Your task to perform on an android device: turn pop-ups on in chrome Image 0: 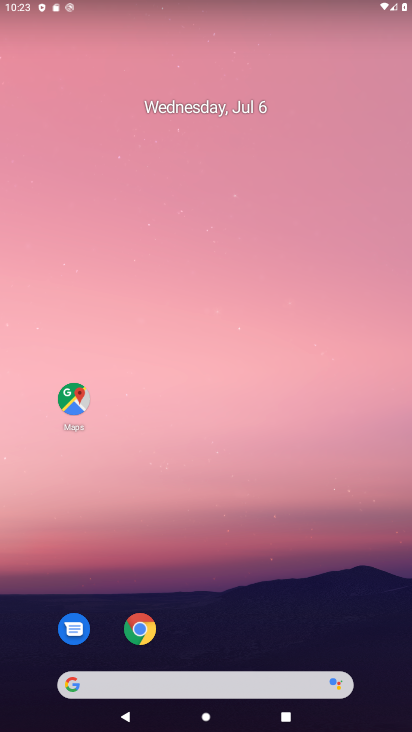
Step 0: click (135, 631)
Your task to perform on an android device: turn pop-ups on in chrome Image 1: 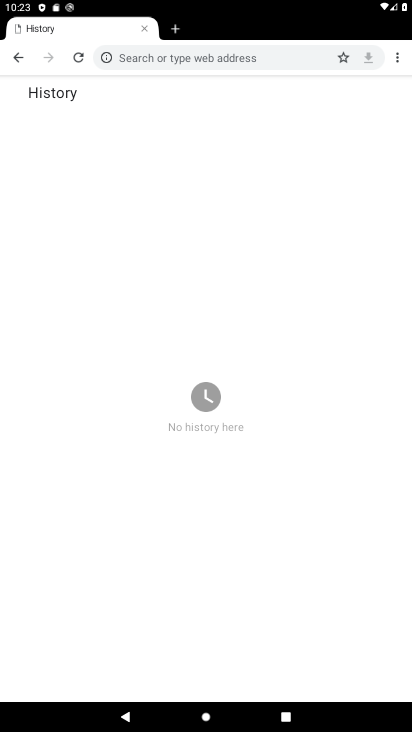
Step 1: click (26, 62)
Your task to perform on an android device: turn pop-ups on in chrome Image 2: 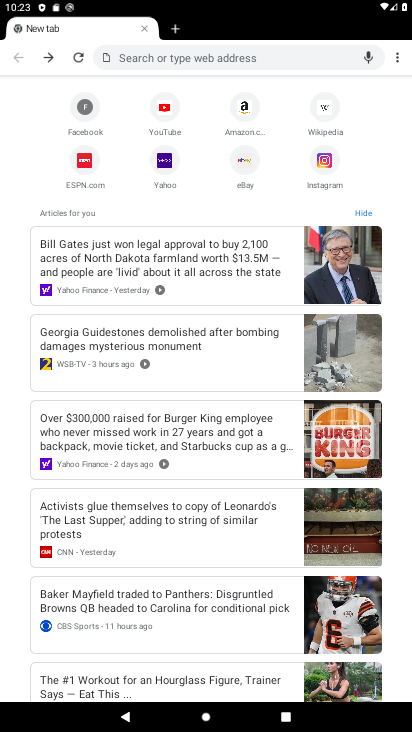
Step 2: click (393, 50)
Your task to perform on an android device: turn pop-ups on in chrome Image 3: 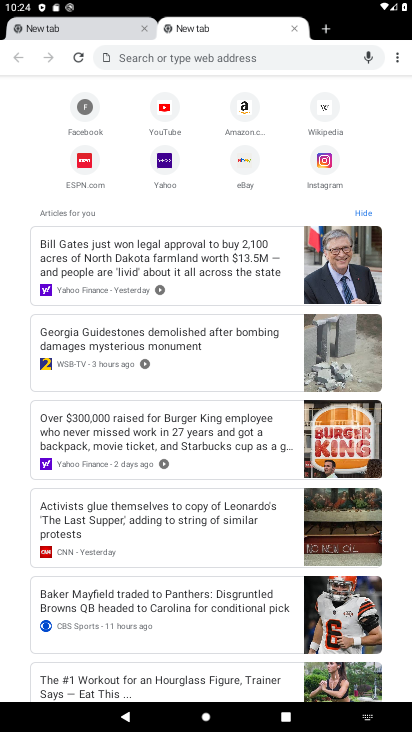
Step 3: click (400, 56)
Your task to perform on an android device: turn pop-ups on in chrome Image 4: 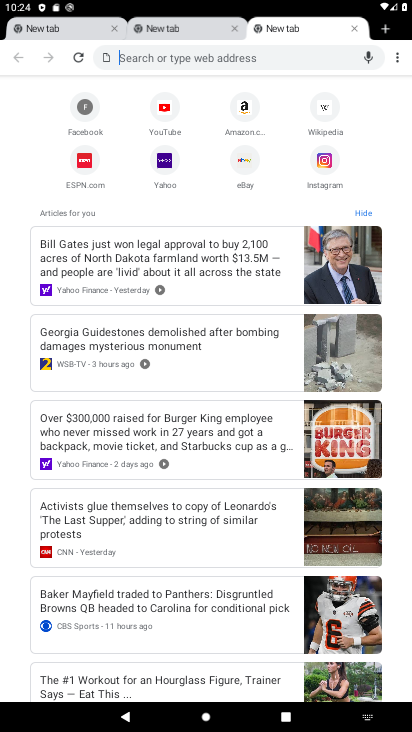
Step 4: click (394, 66)
Your task to perform on an android device: turn pop-ups on in chrome Image 5: 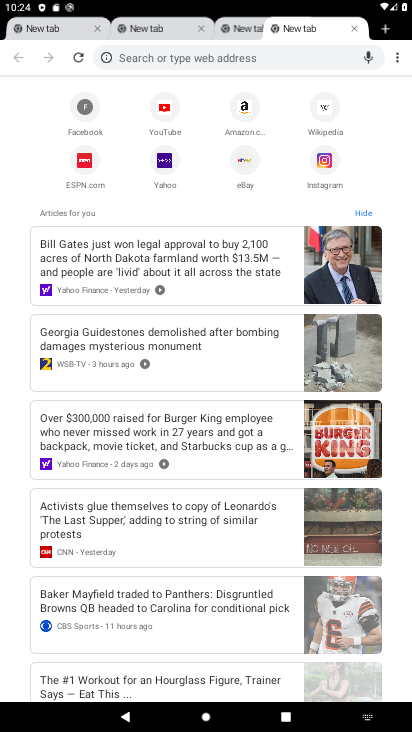
Step 5: click (394, 66)
Your task to perform on an android device: turn pop-ups on in chrome Image 6: 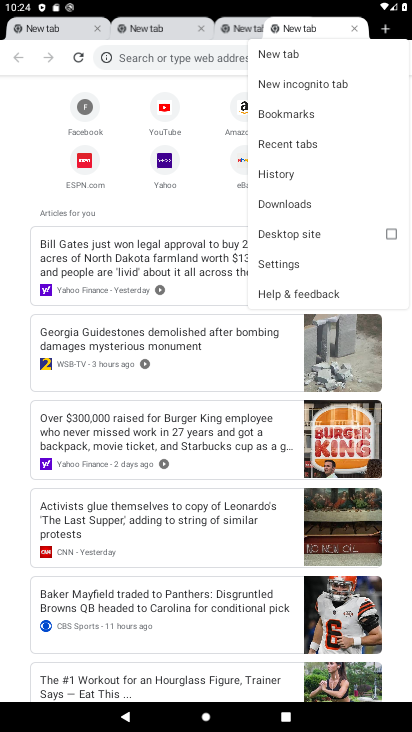
Step 6: click (314, 260)
Your task to perform on an android device: turn pop-ups on in chrome Image 7: 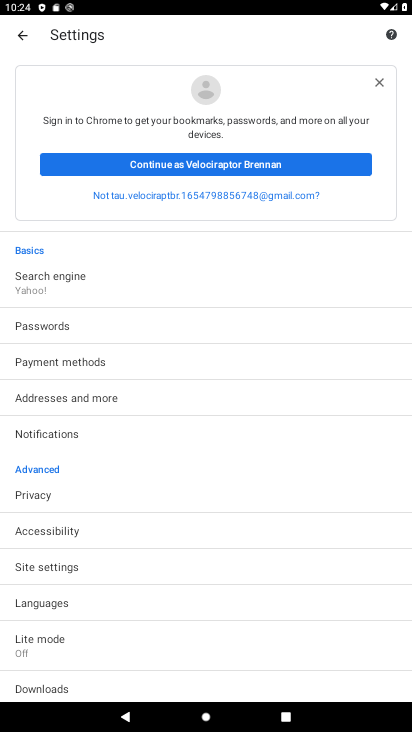
Step 7: click (89, 575)
Your task to perform on an android device: turn pop-ups on in chrome Image 8: 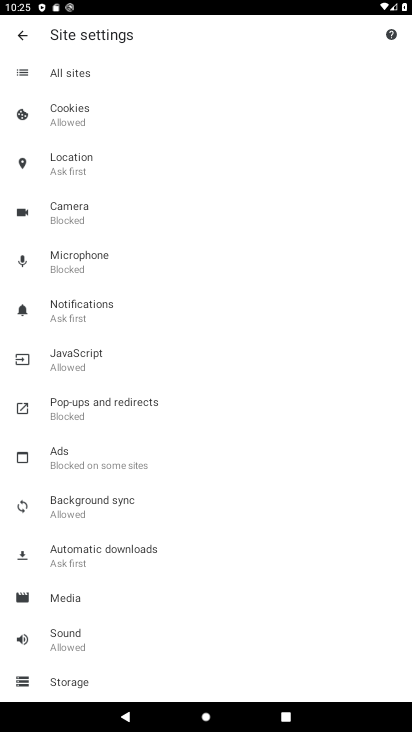
Step 8: click (145, 401)
Your task to perform on an android device: turn pop-ups on in chrome Image 9: 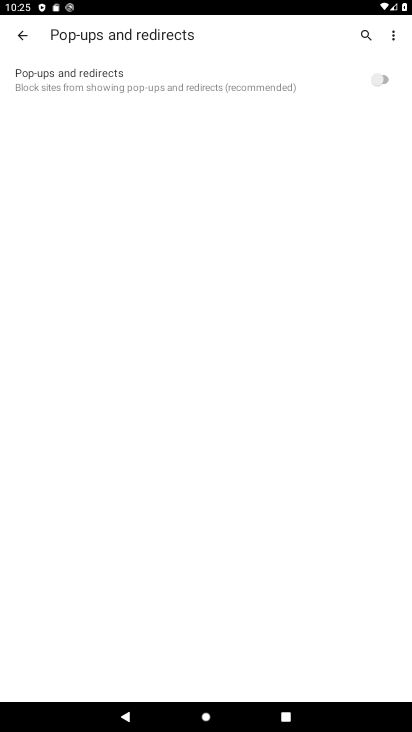
Step 9: click (381, 74)
Your task to perform on an android device: turn pop-ups on in chrome Image 10: 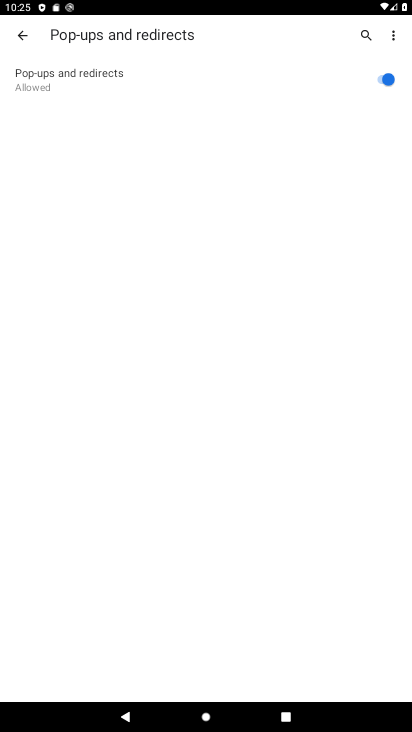
Step 10: task complete